Your task to perform on an android device: How big is a lion? Image 0: 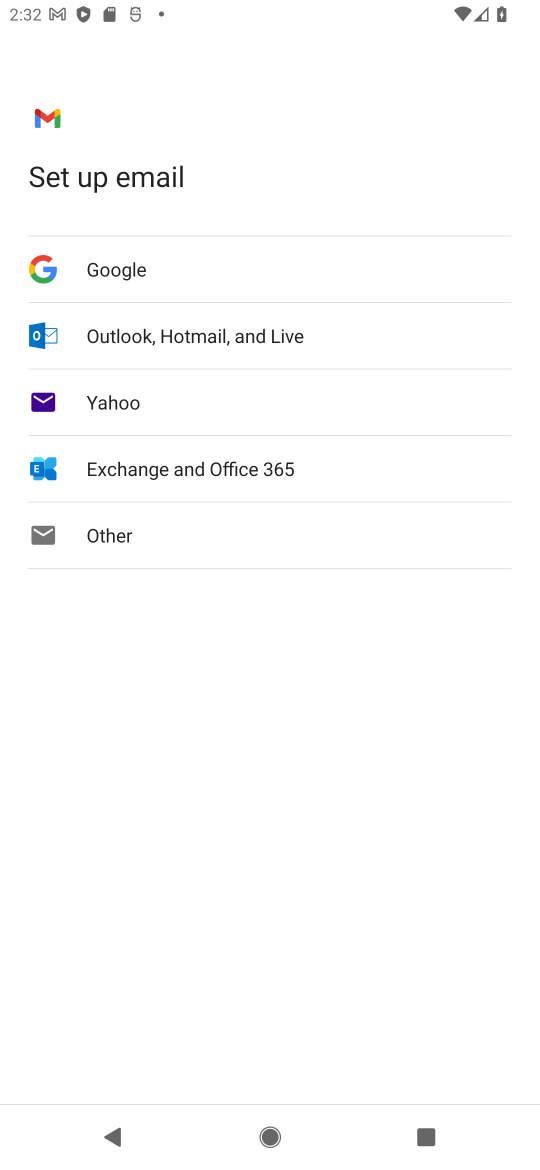
Step 0: press home button
Your task to perform on an android device: How big is a lion? Image 1: 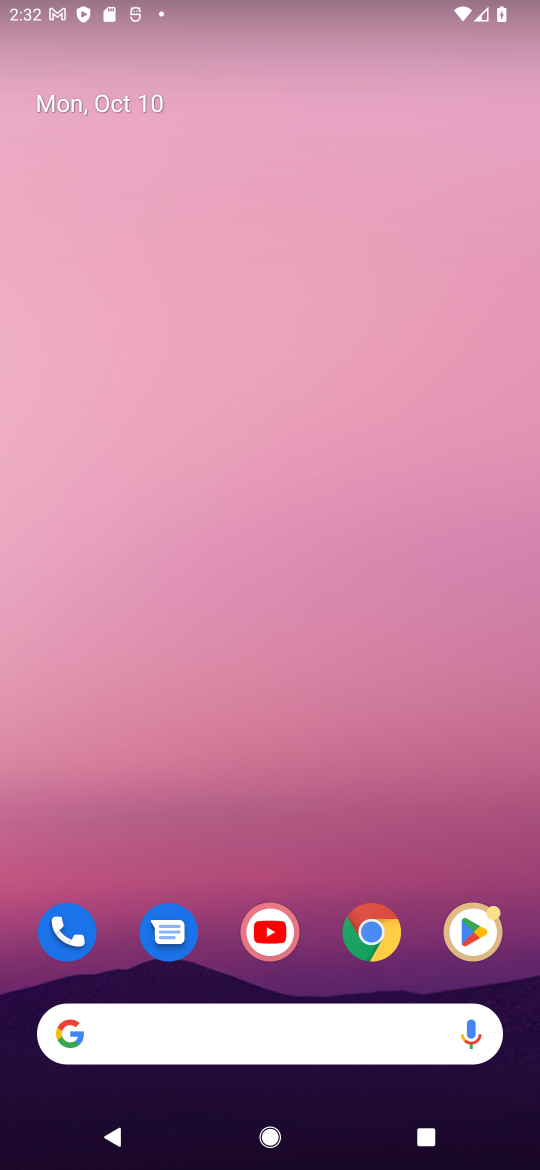
Step 1: click (391, 1030)
Your task to perform on an android device: How big is a lion? Image 2: 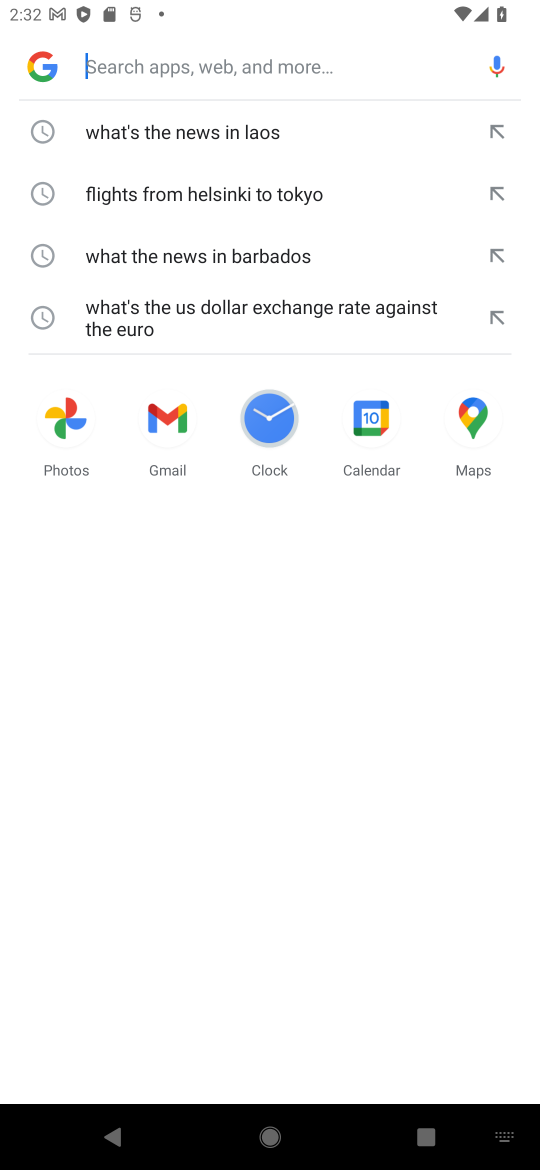
Step 2: type "how big is a lion"
Your task to perform on an android device: How big is a lion? Image 3: 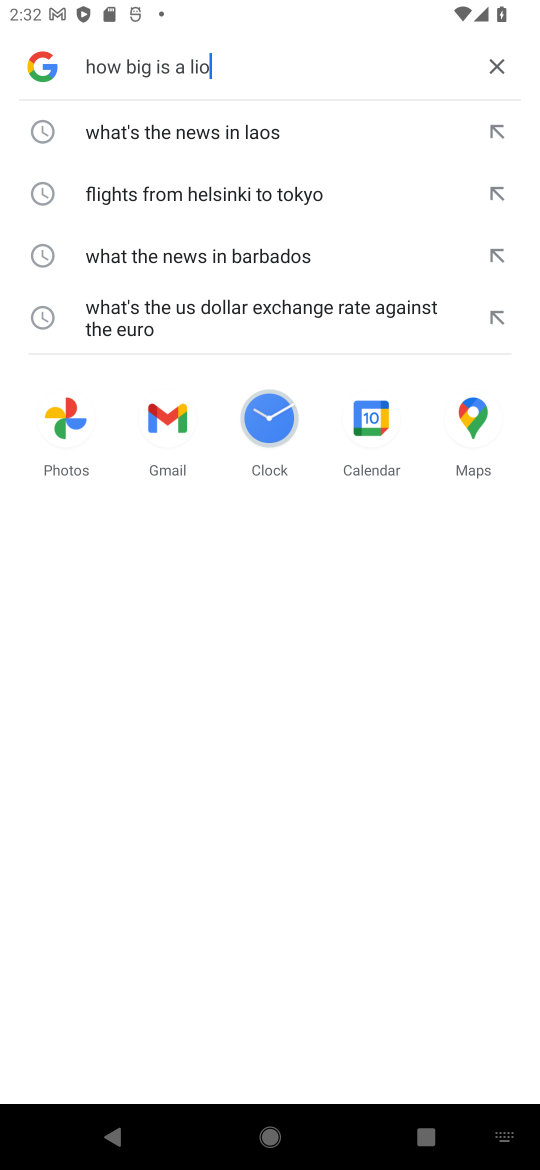
Step 3: press enter
Your task to perform on an android device: How big is a lion? Image 4: 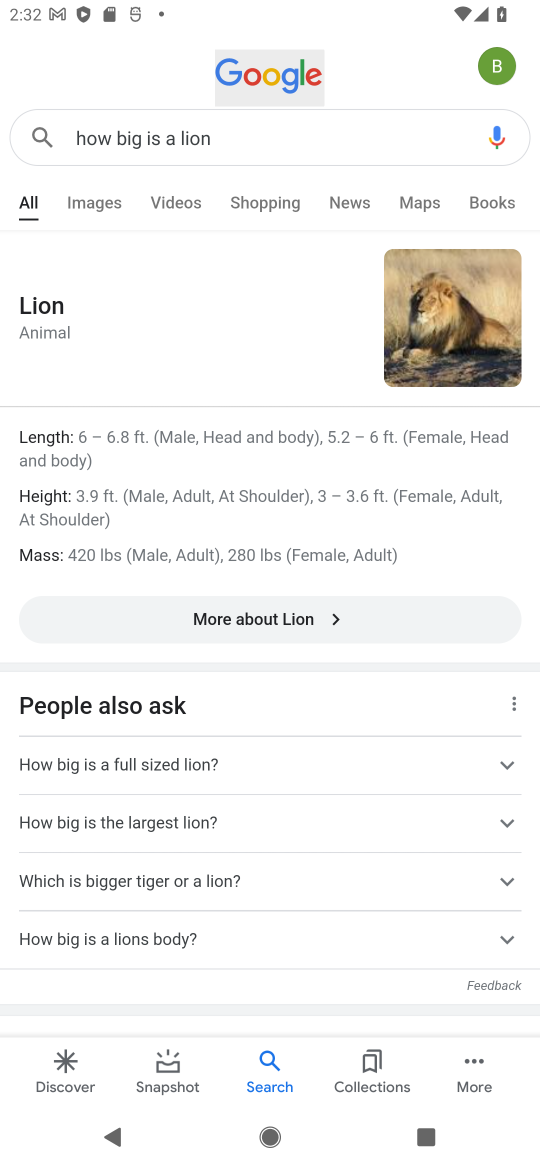
Step 4: click (288, 622)
Your task to perform on an android device: How big is a lion? Image 5: 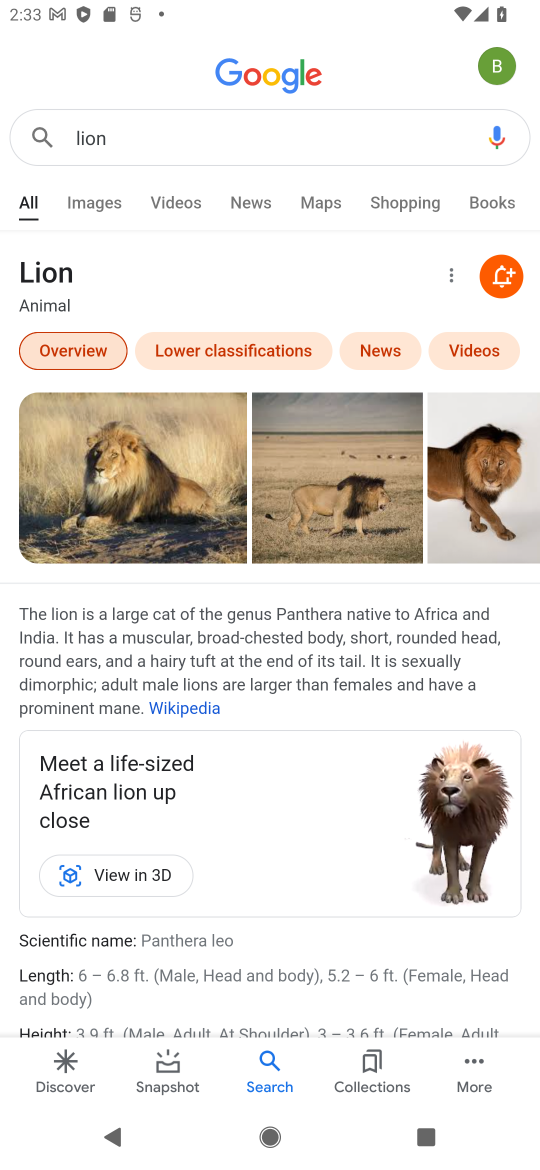
Step 5: task complete